Your task to perform on an android device: find which apps use the phone's location Image 0: 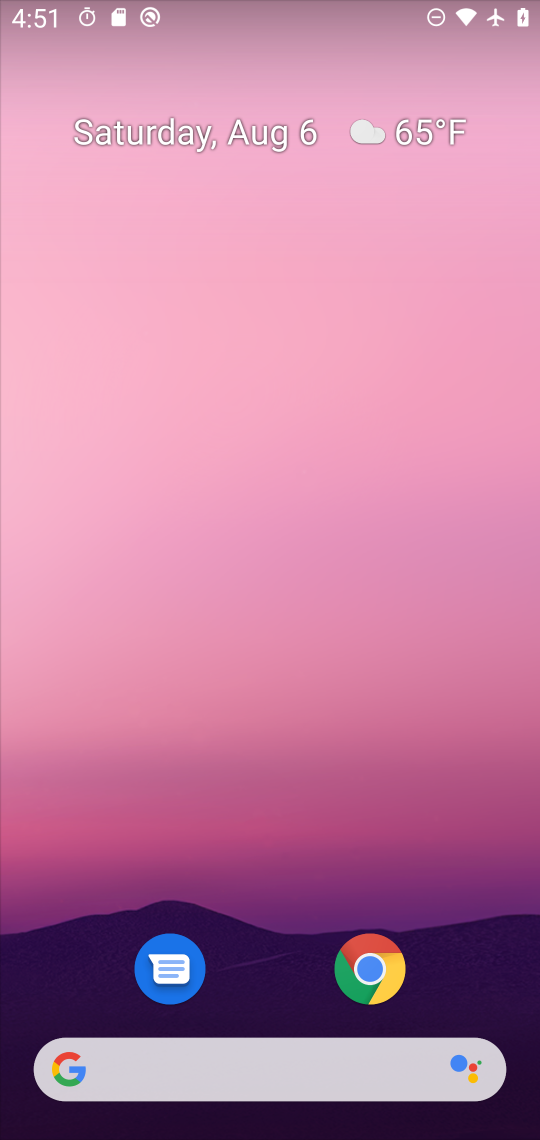
Step 0: press home button
Your task to perform on an android device: find which apps use the phone's location Image 1: 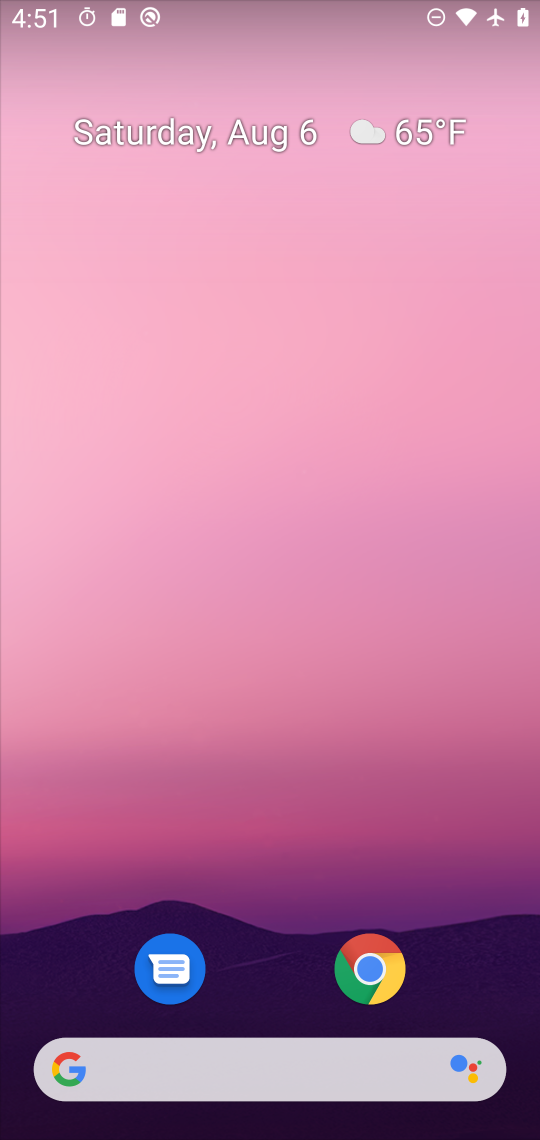
Step 1: drag from (284, 974) to (255, 303)
Your task to perform on an android device: find which apps use the phone's location Image 2: 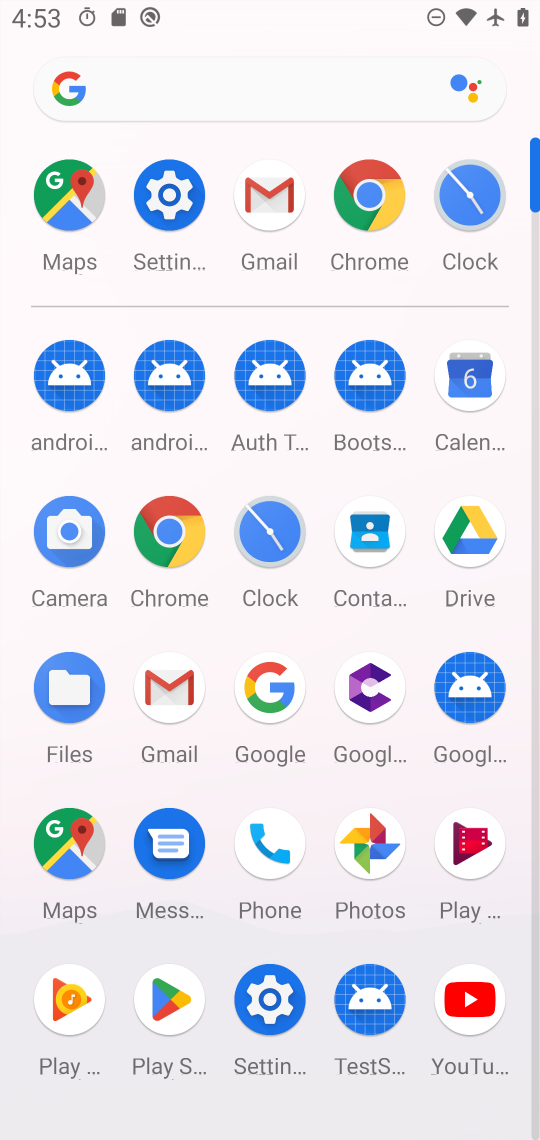
Step 2: press home button
Your task to perform on an android device: find which apps use the phone's location Image 3: 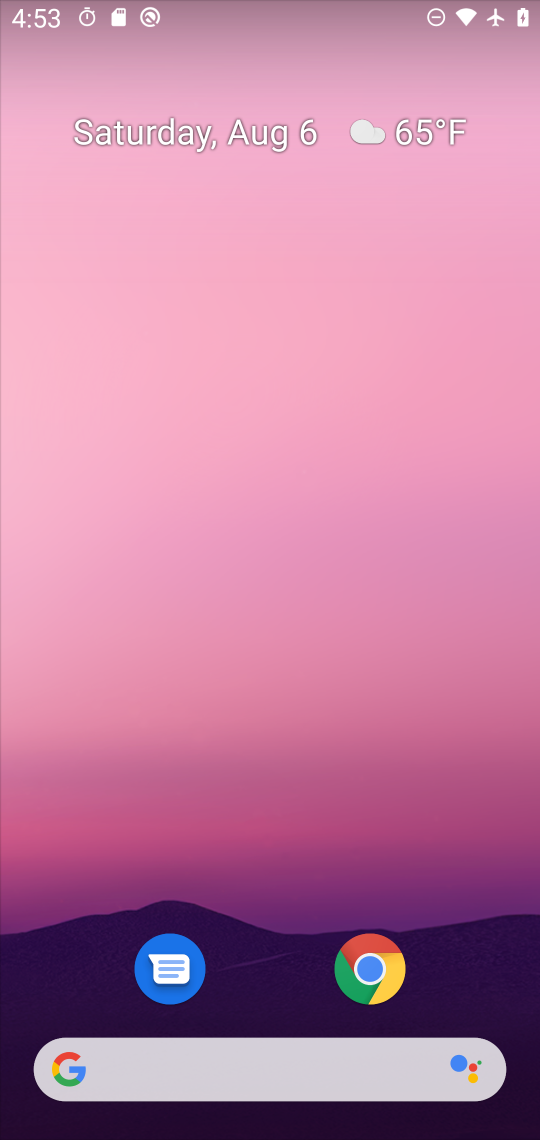
Step 3: drag from (260, 562) to (264, 216)
Your task to perform on an android device: find which apps use the phone's location Image 4: 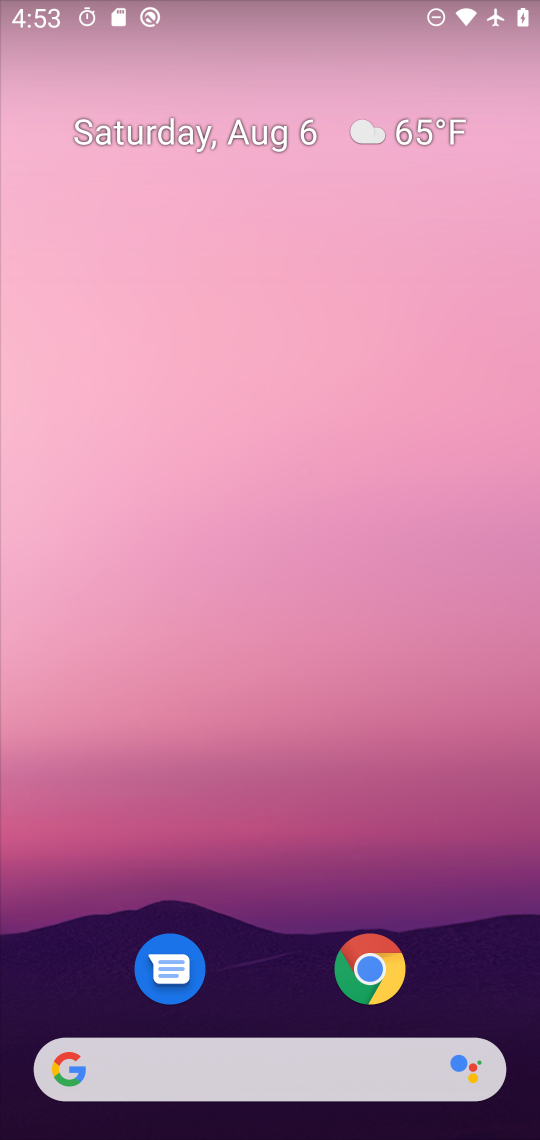
Step 4: drag from (289, 1014) to (299, 292)
Your task to perform on an android device: find which apps use the phone's location Image 5: 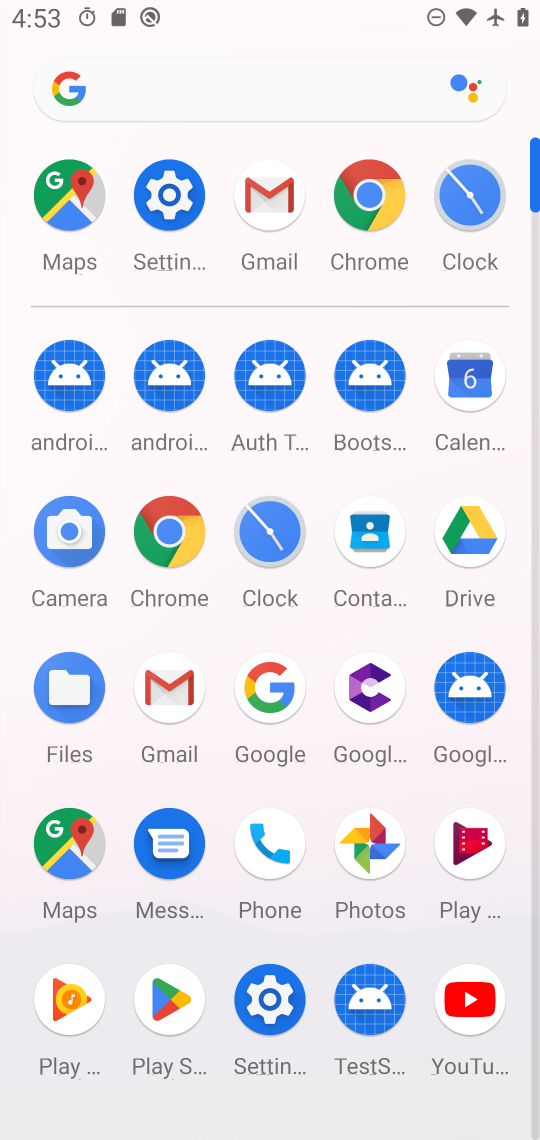
Step 5: click (167, 193)
Your task to perform on an android device: find which apps use the phone's location Image 6: 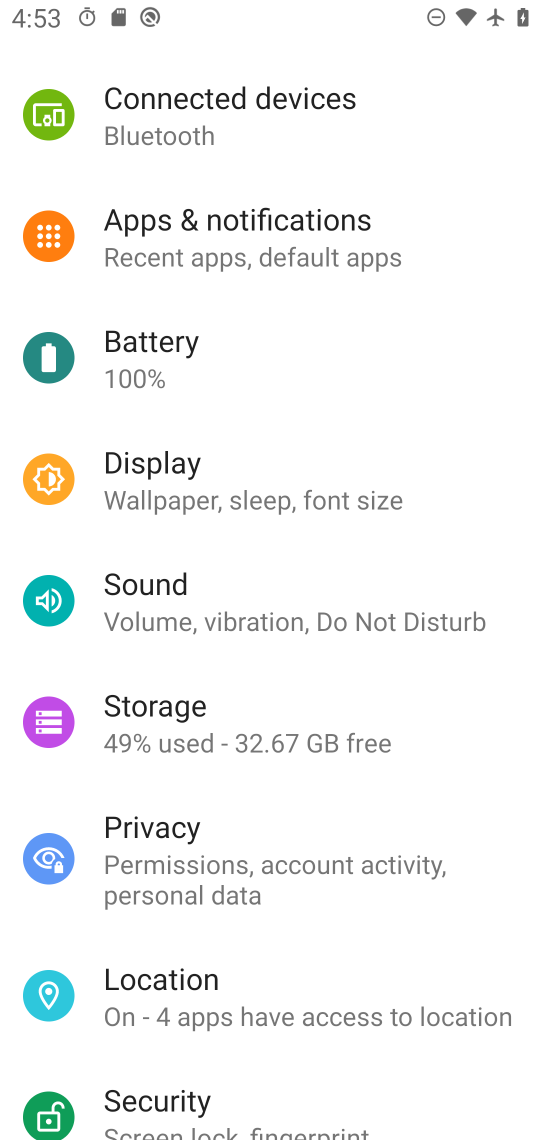
Step 6: click (185, 1001)
Your task to perform on an android device: find which apps use the phone's location Image 7: 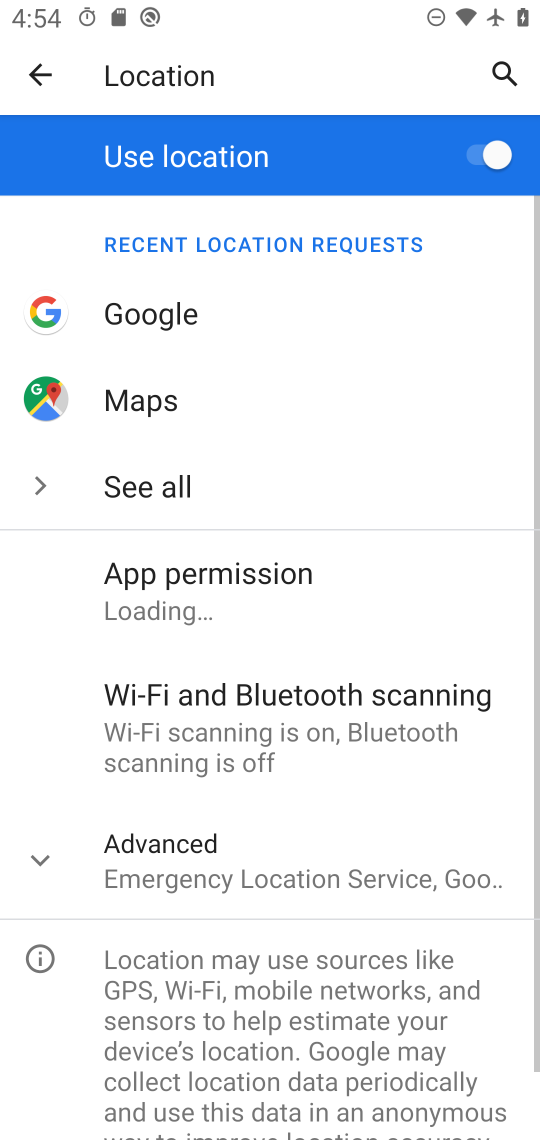
Step 7: click (182, 597)
Your task to perform on an android device: find which apps use the phone's location Image 8: 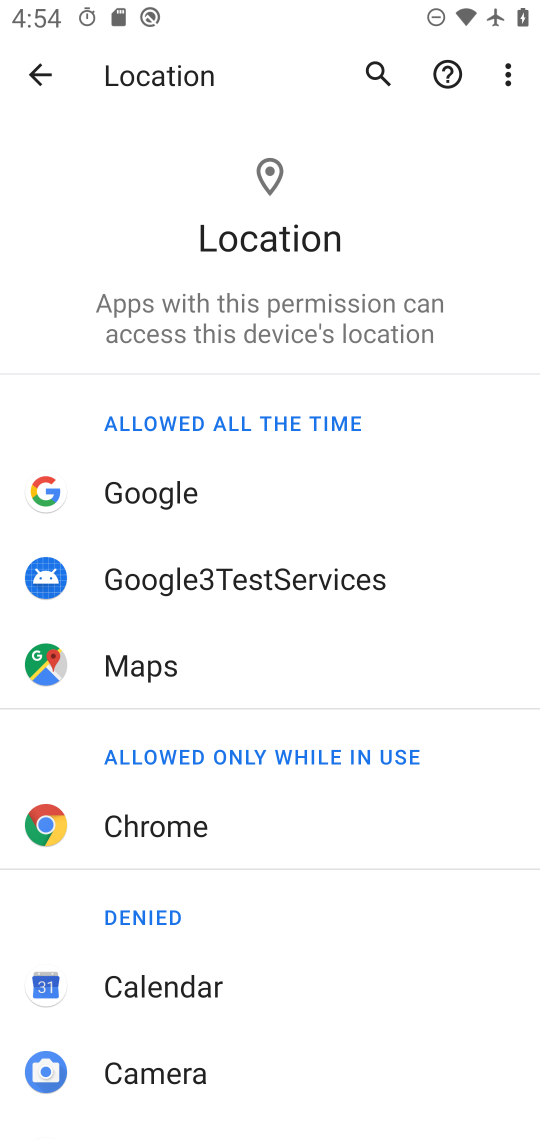
Step 8: task complete